Your task to perform on an android device: create a new album in the google photos Image 0: 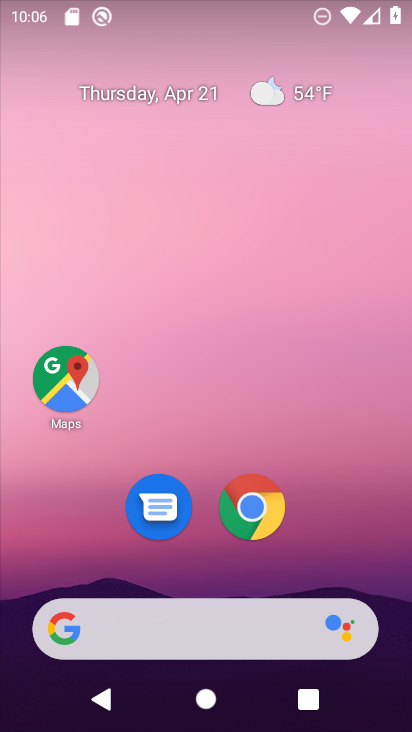
Step 0: drag from (261, 583) to (261, 293)
Your task to perform on an android device: create a new album in the google photos Image 1: 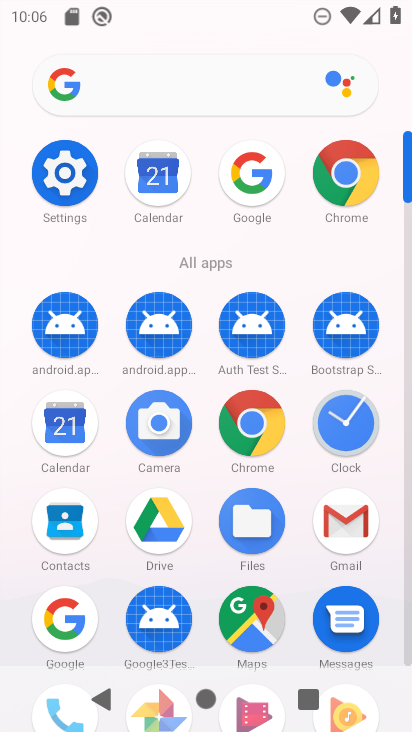
Step 1: drag from (206, 631) to (206, 343)
Your task to perform on an android device: create a new album in the google photos Image 2: 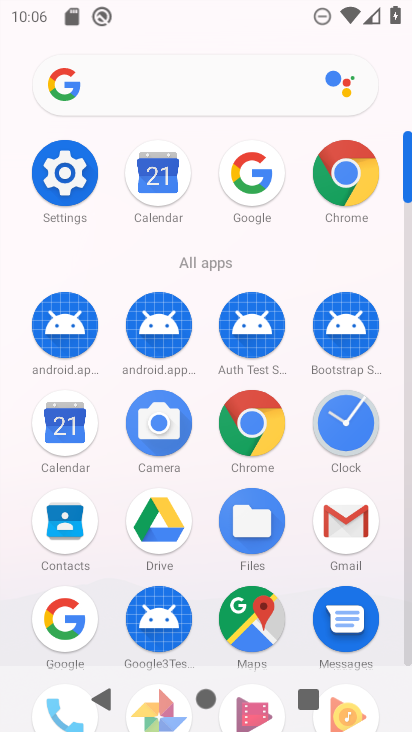
Step 2: drag from (198, 624) to (203, 343)
Your task to perform on an android device: create a new album in the google photos Image 3: 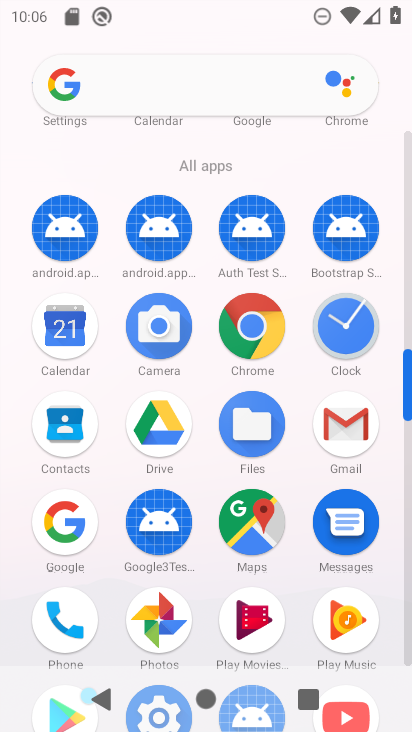
Step 3: click (166, 622)
Your task to perform on an android device: create a new album in the google photos Image 4: 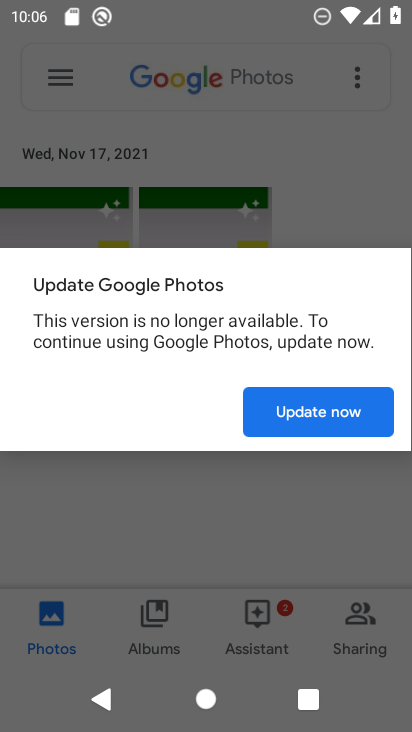
Step 4: click (316, 399)
Your task to perform on an android device: create a new album in the google photos Image 5: 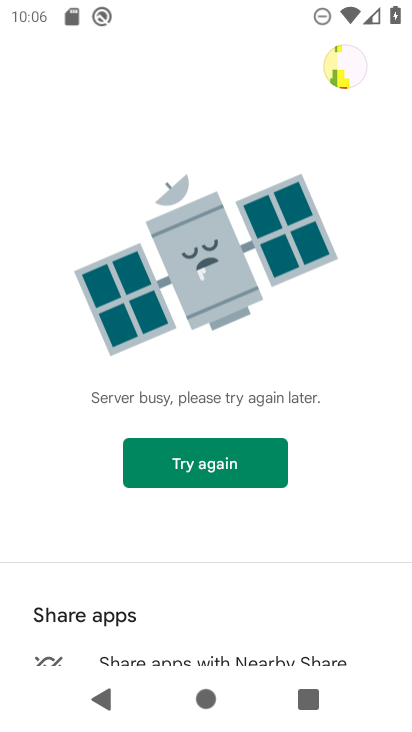
Step 5: task complete